Your task to perform on an android device: turn on location history Image 0: 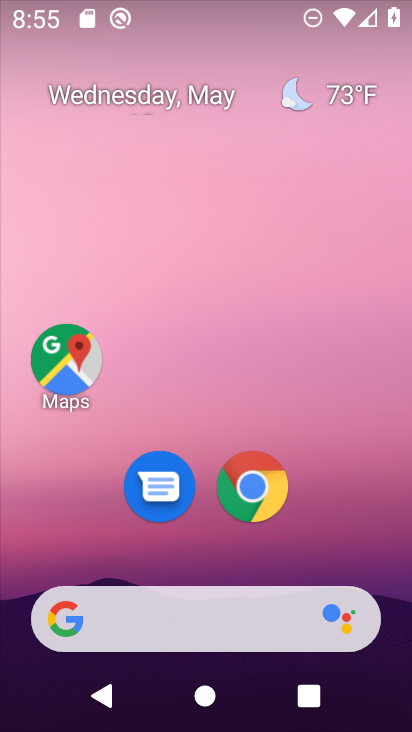
Step 0: click (60, 357)
Your task to perform on an android device: turn on location history Image 1: 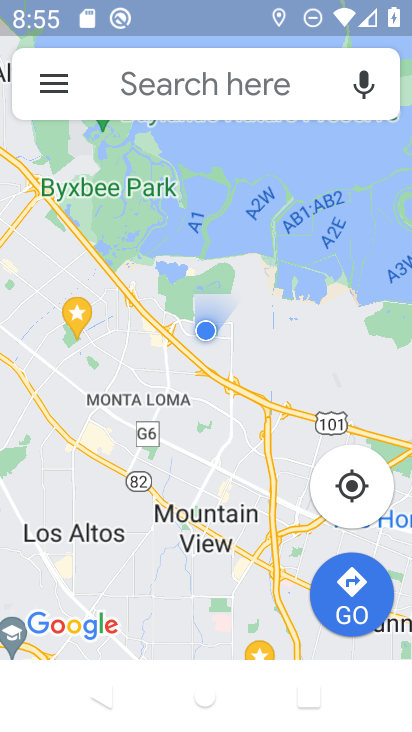
Step 1: click (48, 84)
Your task to perform on an android device: turn on location history Image 2: 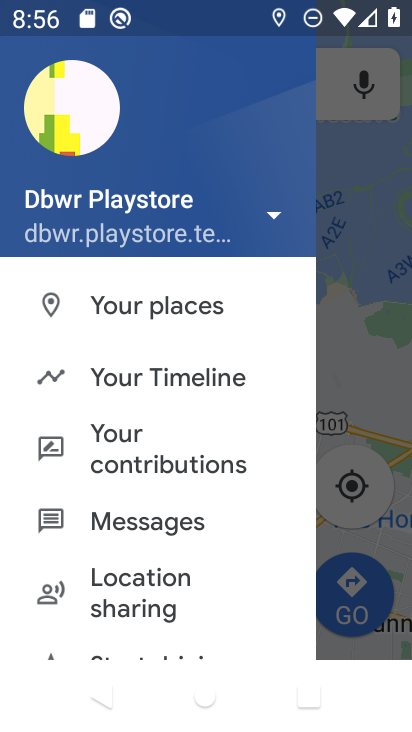
Step 2: drag from (220, 638) to (181, 144)
Your task to perform on an android device: turn on location history Image 3: 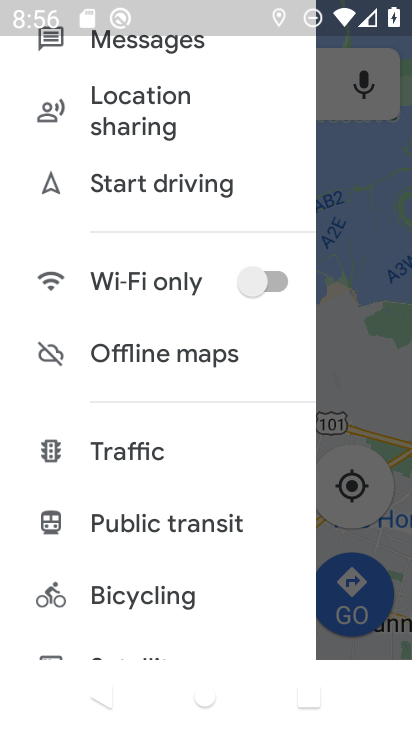
Step 3: drag from (222, 584) to (174, 202)
Your task to perform on an android device: turn on location history Image 4: 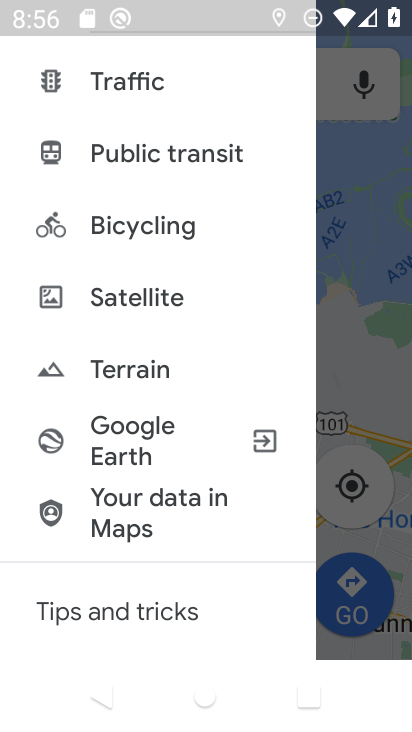
Step 4: drag from (226, 573) to (175, 286)
Your task to perform on an android device: turn on location history Image 5: 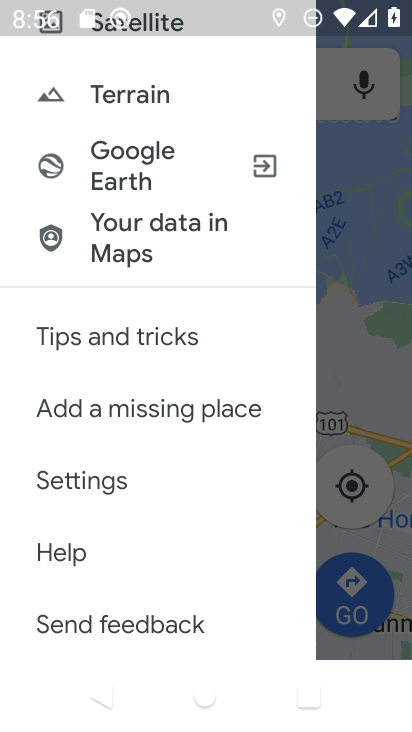
Step 5: click (89, 494)
Your task to perform on an android device: turn on location history Image 6: 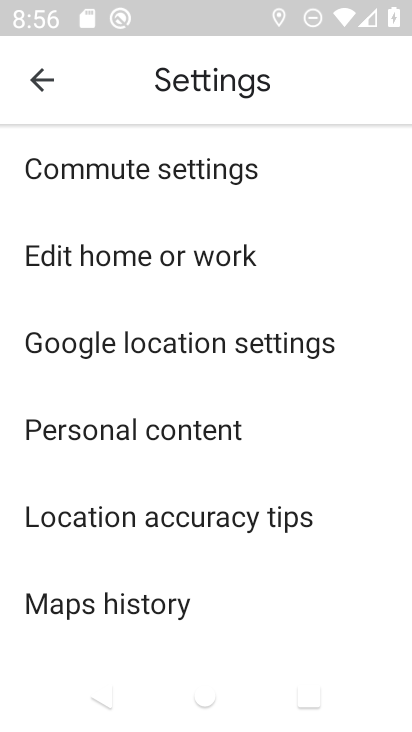
Step 6: click (80, 433)
Your task to perform on an android device: turn on location history Image 7: 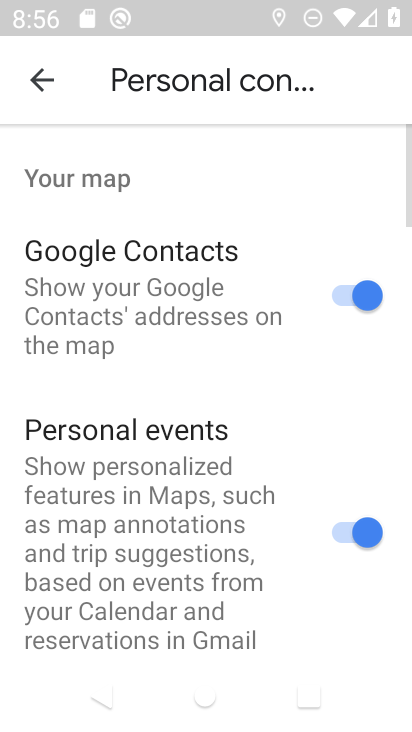
Step 7: drag from (249, 621) to (275, 197)
Your task to perform on an android device: turn on location history Image 8: 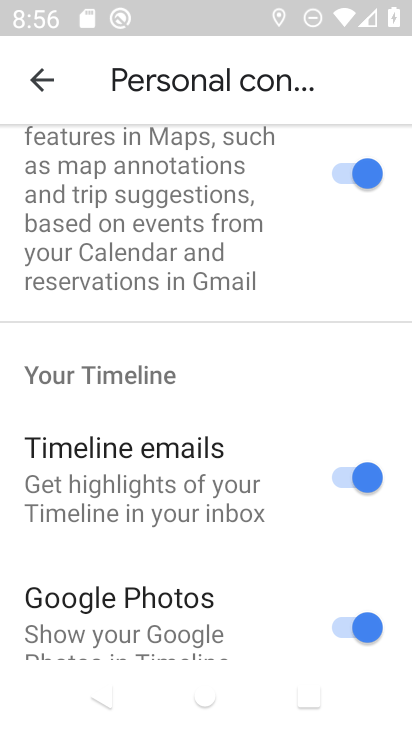
Step 8: drag from (274, 588) to (286, 256)
Your task to perform on an android device: turn on location history Image 9: 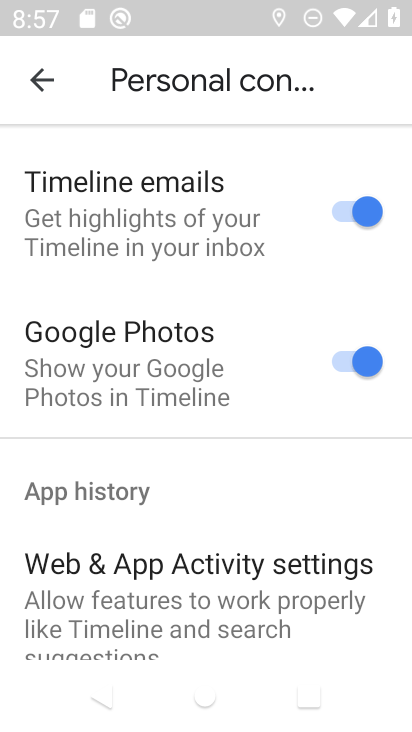
Step 9: drag from (310, 540) to (298, 121)
Your task to perform on an android device: turn on location history Image 10: 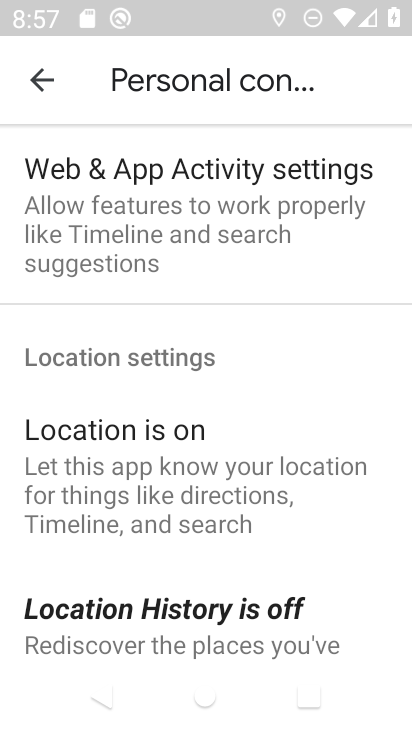
Step 10: drag from (315, 529) to (302, 235)
Your task to perform on an android device: turn on location history Image 11: 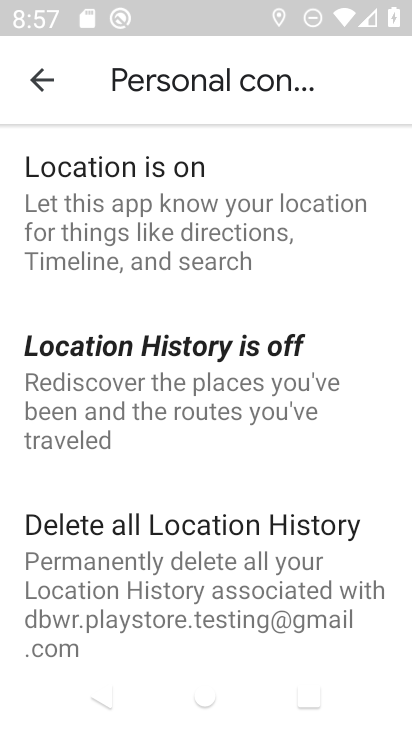
Step 11: click (139, 372)
Your task to perform on an android device: turn on location history Image 12: 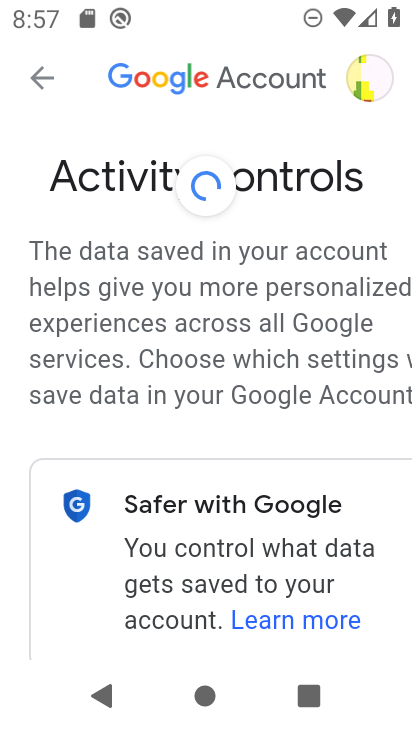
Step 12: drag from (385, 668) to (316, 260)
Your task to perform on an android device: turn on location history Image 13: 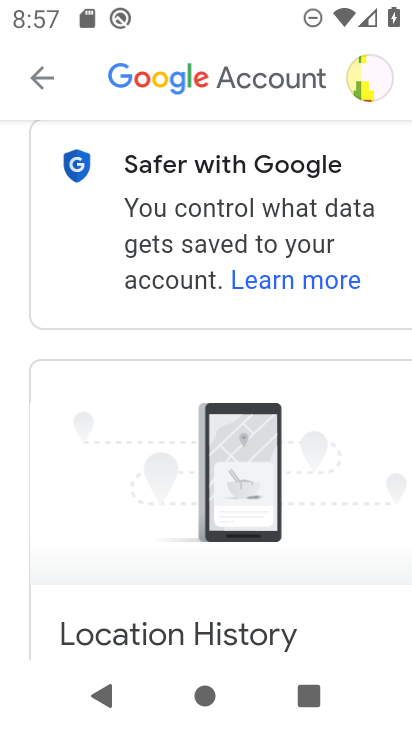
Step 13: drag from (298, 582) to (321, 126)
Your task to perform on an android device: turn on location history Image 14: 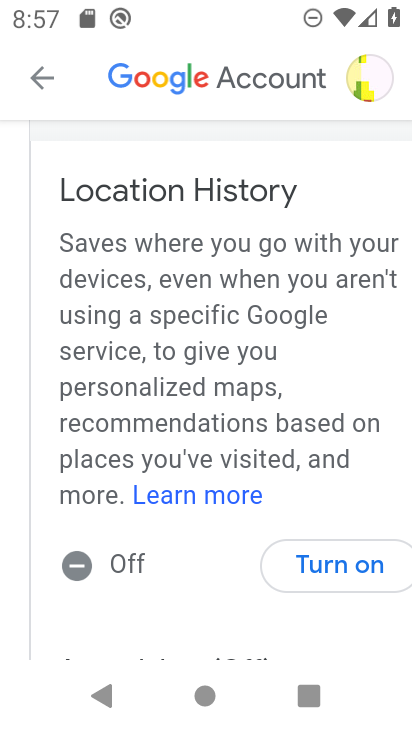
Step 14: click (333, 563)
Your task to perform on an android device: turn on location history Image 15: 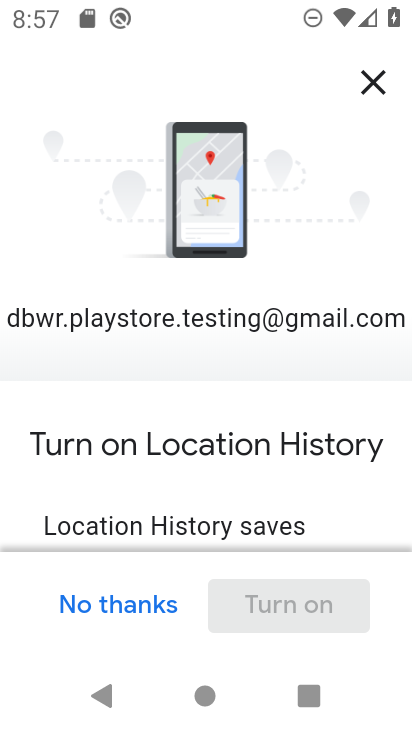
Step 15: drag from (339, 498) to (275, 129)
Your task to perform on an android device: turn on location history Image 16: 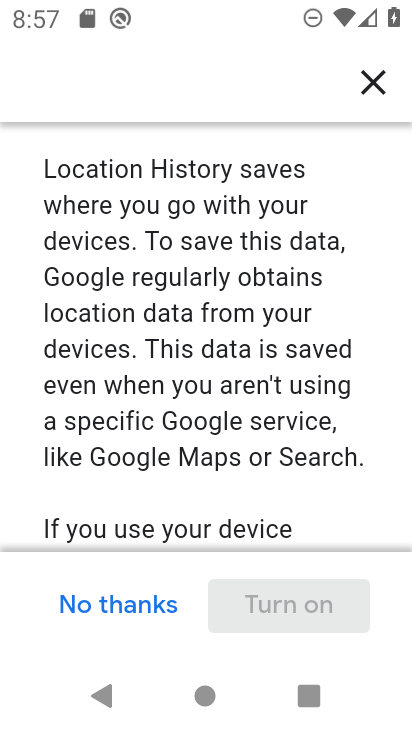
Step 16: drag from (283, 503) to (267, 85)
Your task to perform on an android device: turn on location history Image 17: 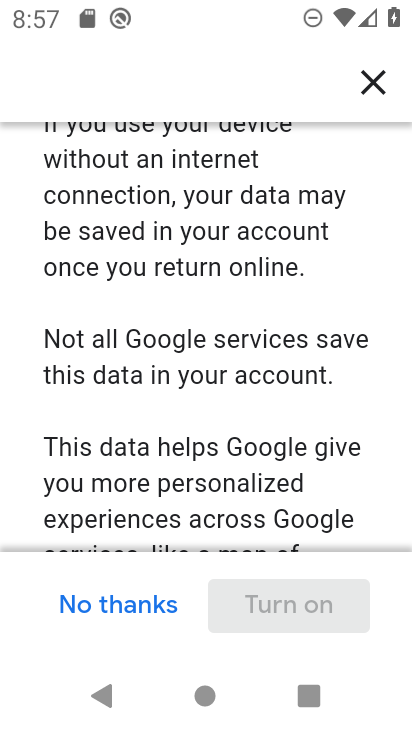
Step 17: drag from (310, 501) to (248, 132)
Your task to perform on an android device: turn on location history Image 18: 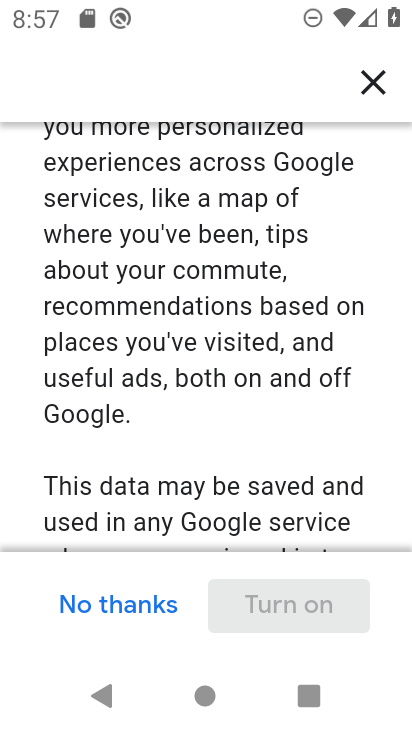
Step 18: drag from (302, 507) to (265, 108)
Your task to perform on an android device: turn on location history Image 19: 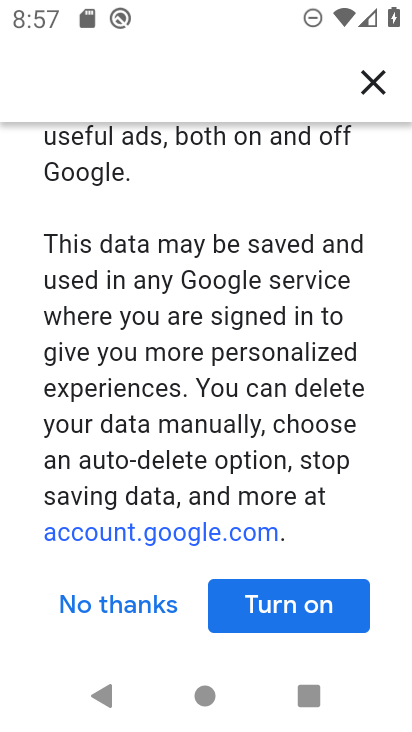
Step 19: click (288, 607)
Your task to perform on an android device: turn on location history Image 20: 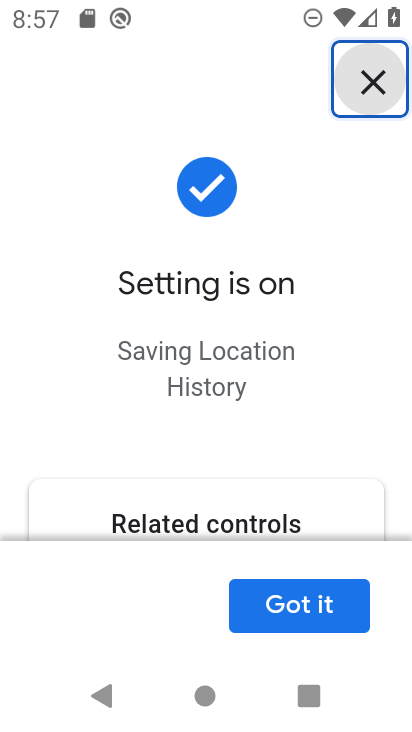
Step 20: click (292, 606)
Your task to perform on an android device: turn on location history Image 21: 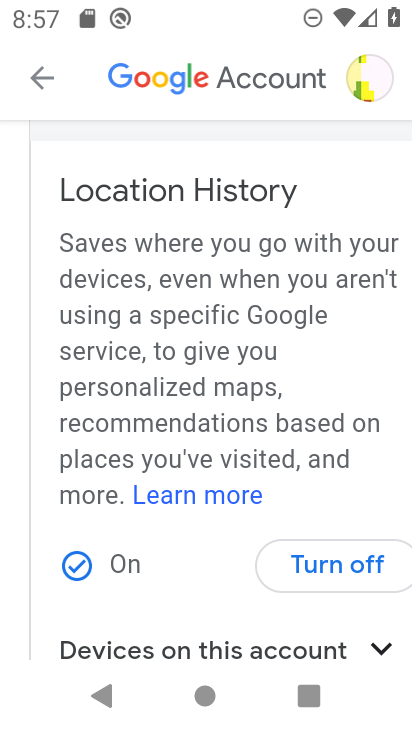
Step 21: task complete